Your task to perform on an android device: set default search engine in the chrome app Image 0: 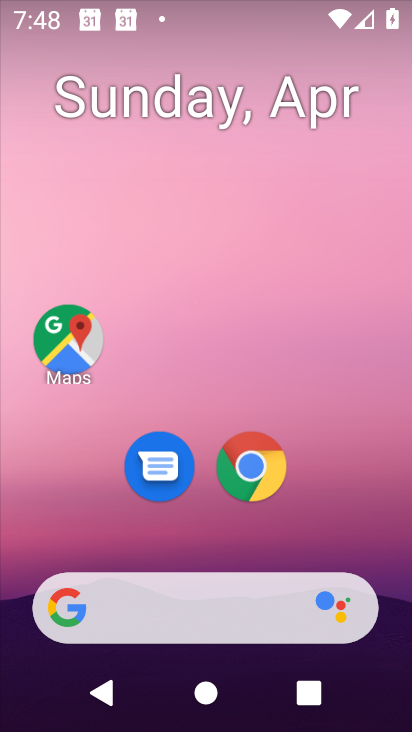
Step 0: click (247, 462)
Your task to perform on an android device: set default search engine in the chrome app Image 1: 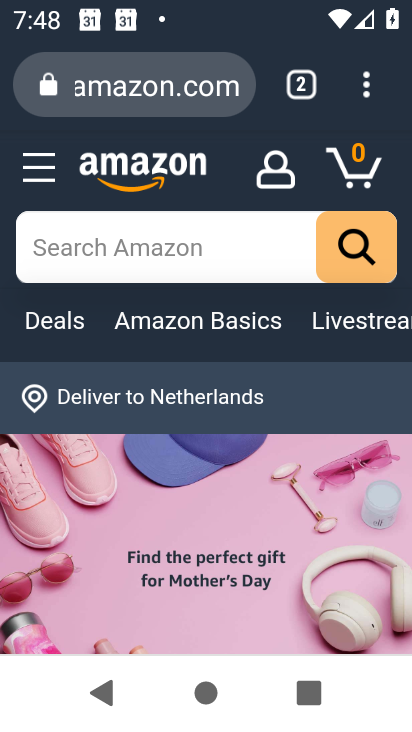
Step 1: click (367, 97)
Your task to perform on an android device: set default search engine in the chrome app Image 2: 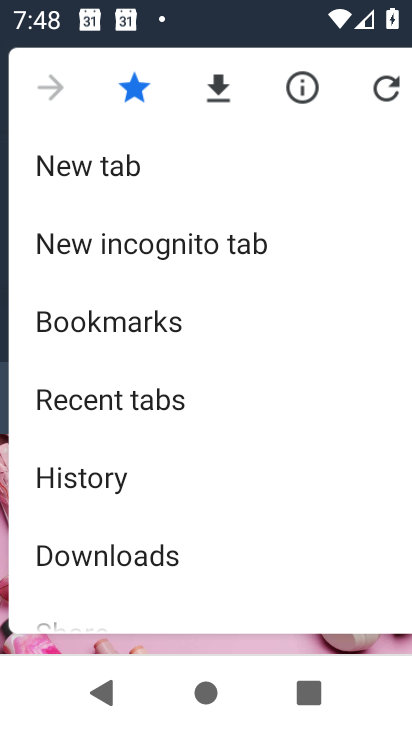
Step 2: drag from (124, 590) to (197, 53)
Your task to perform on an android device: set default search engine in the chrome app Image 3: 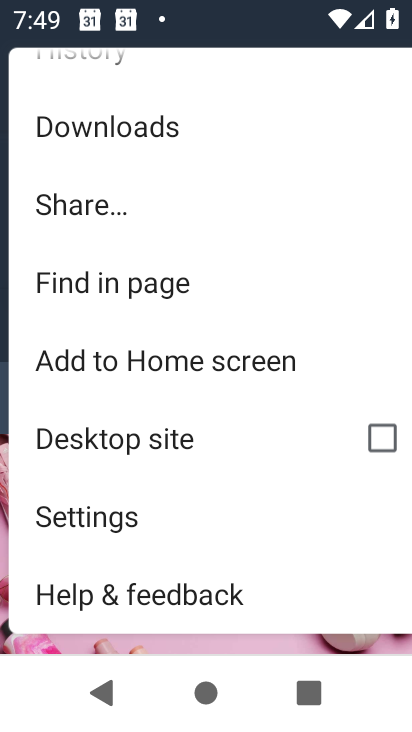
Step 3: click (107, 518)
Your task to perform on an android device: set default search engine in the chrome app Image 4: 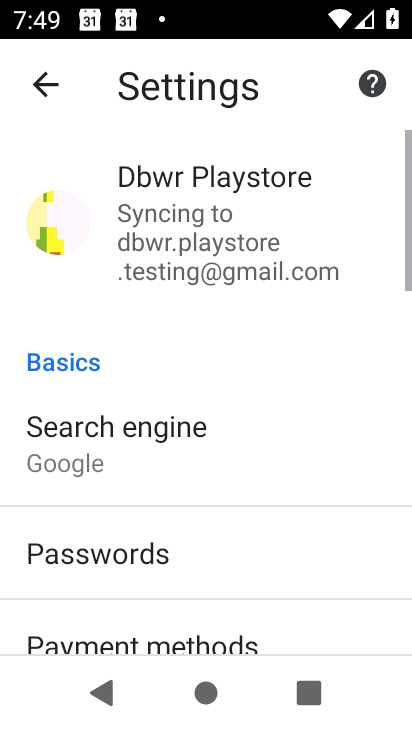
Step 4: click (73, 460)
Your task to perform on an android device: set default search engine in the chrome app Image 5: 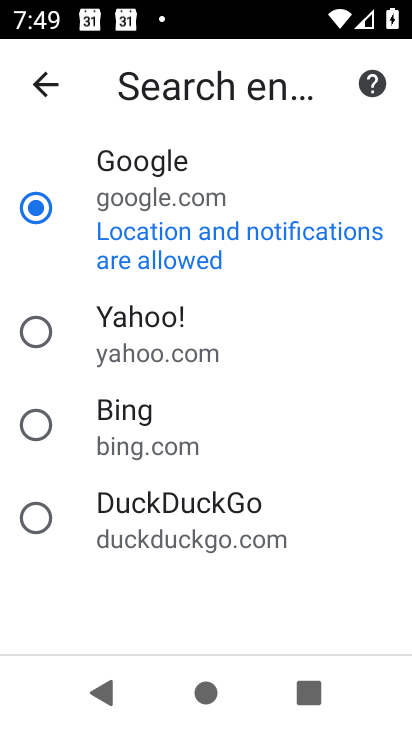
Step 5: click (41, 333)
Your task to perform on an android device: set default search engine in the chrome app Image 6: 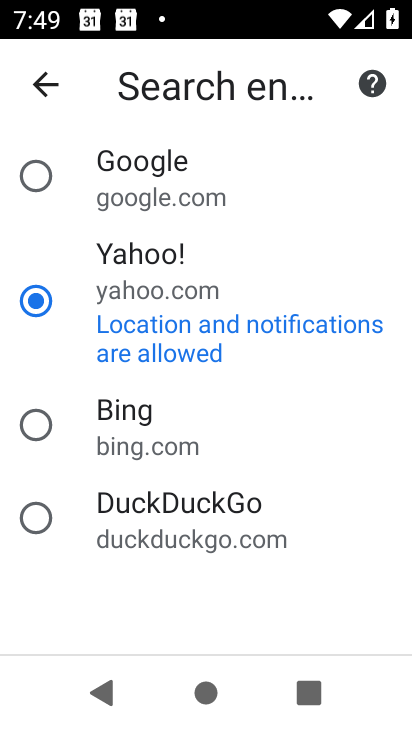
Step 6: task complete